Your task to perform on an android device: Open internet settings Image 0: 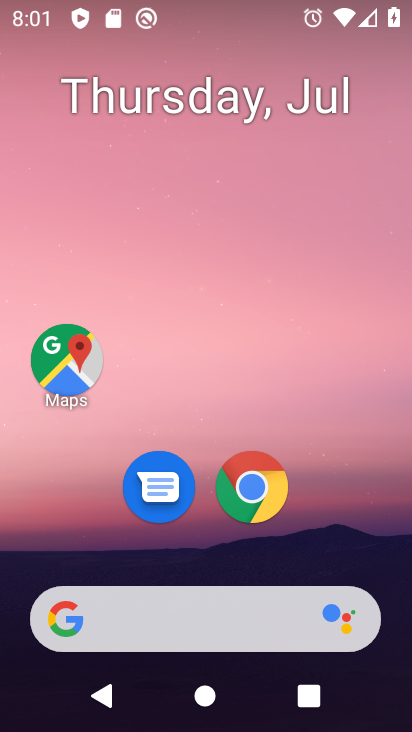
Step 0: drag from (214, 574) to (261, 86)
Your task to perform on an android device: Open internet settings Image 1: 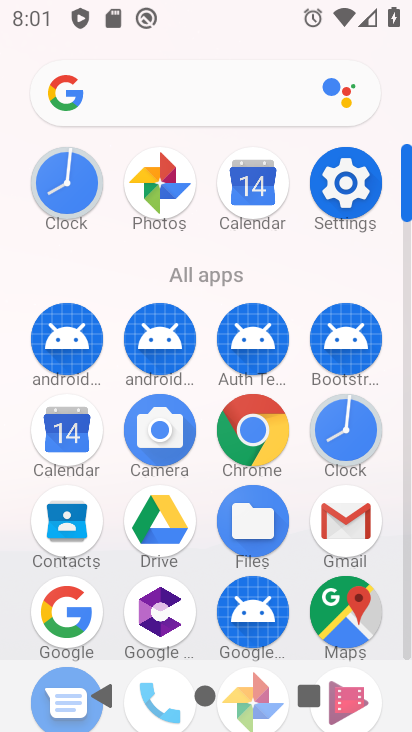
Step 1: drag from (218, 551) to (234, 333)
Your task to perform on an android device: Open internet settings Image 2: 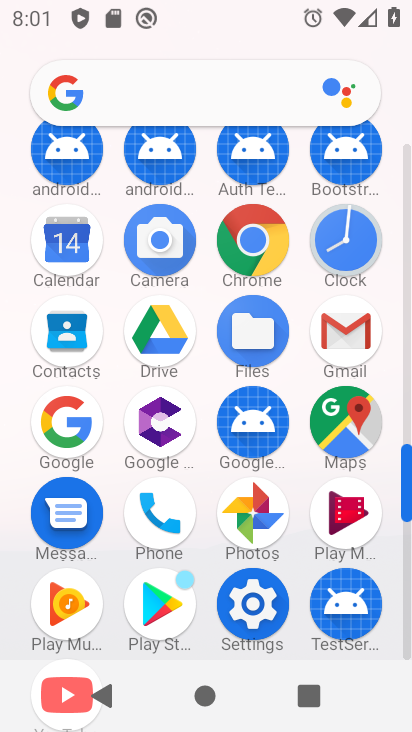
Step 2: click (260, 608)
Your task to perform on an android device: Open internet settings Image 3: 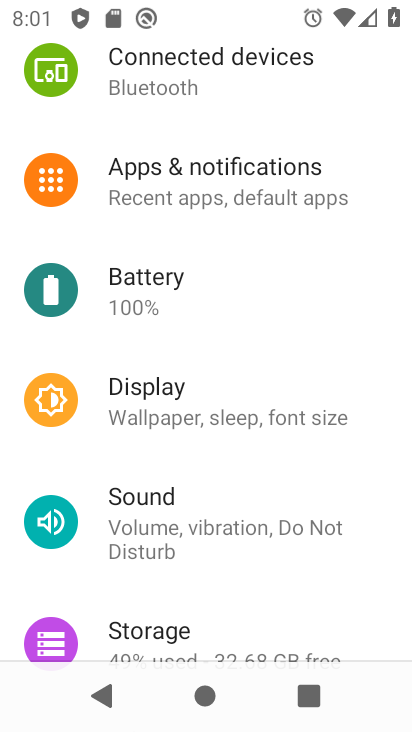
Step 3: drag from (242, 315) to (218, 538)
Your task to perform on an android device: Open internet settings Image 4: 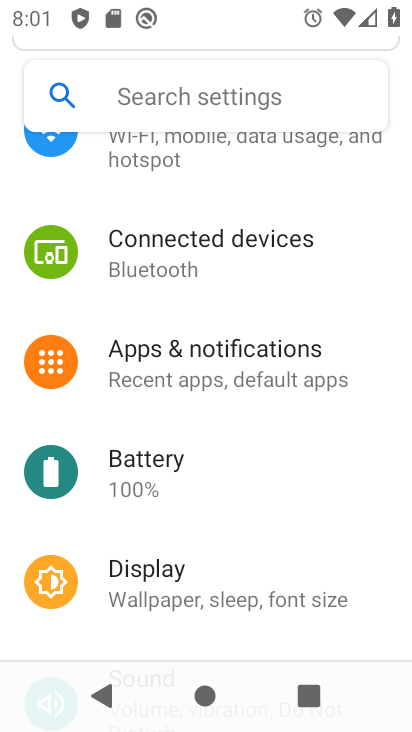
Step 4: drag from (252, 300) to (231, 575)
Your task to perform on an android device: Open internet settings Image 5: 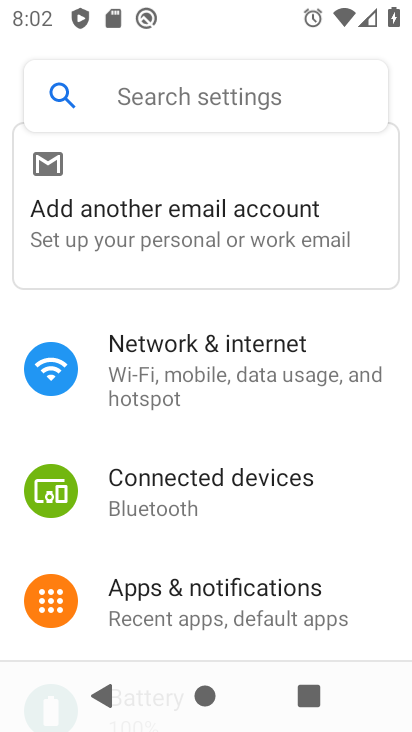
Step 5: click (251, 398)
Your task to perform on an android device: Open internet settings Image 6: 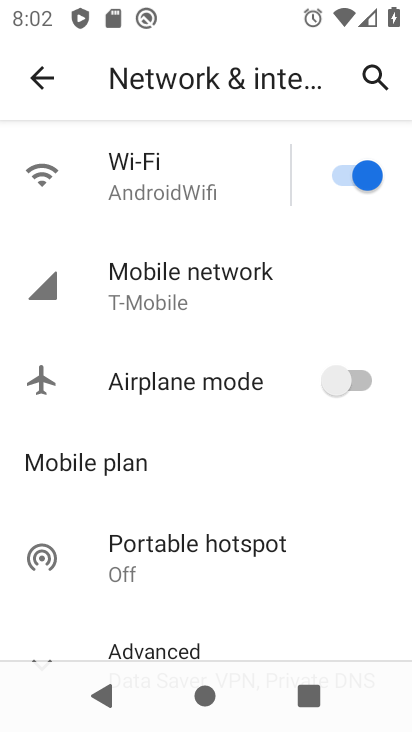
Step 6: click (221, 286)
Your task to perform on an android device: Open internet settings Image 7: 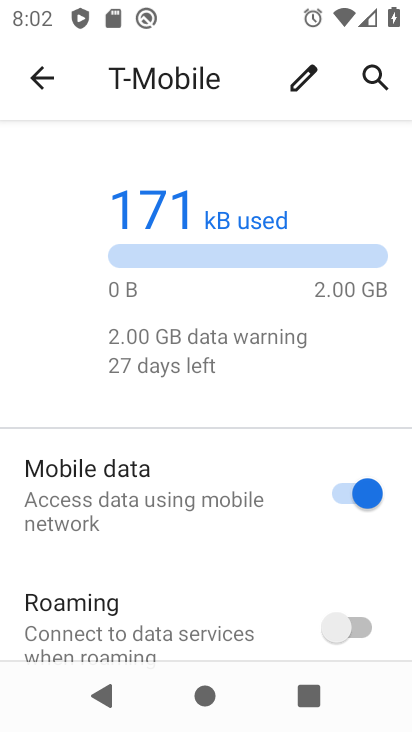
Step 7: task complete